Your task to perform on an android device: turn on priority inbox in the gmail app Image 0: 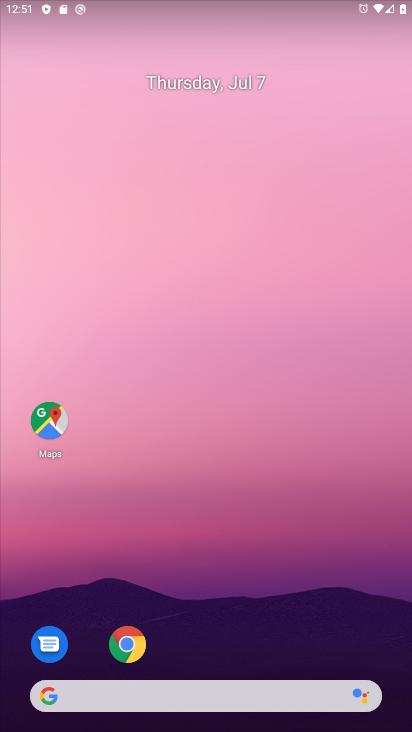
Step 0: drag from (34, 713) to (114, 285)
Your task to perform on an android device: turn on priority inbox in the gmail app Image 1: 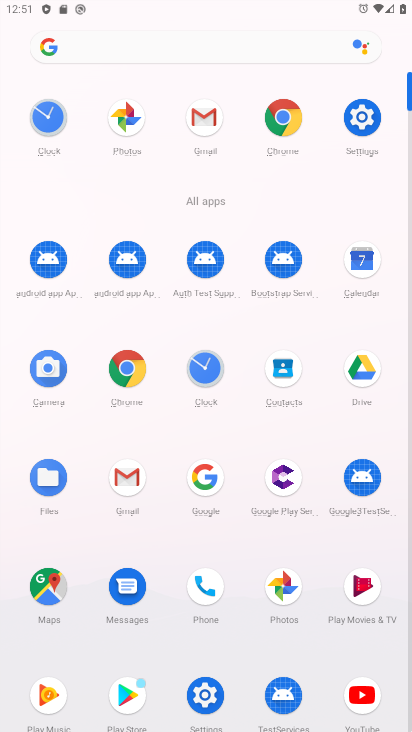
Step 1: click (197, 129)
Your task to perform on an android device: turn on priority inbox in the gmail app Image 2: 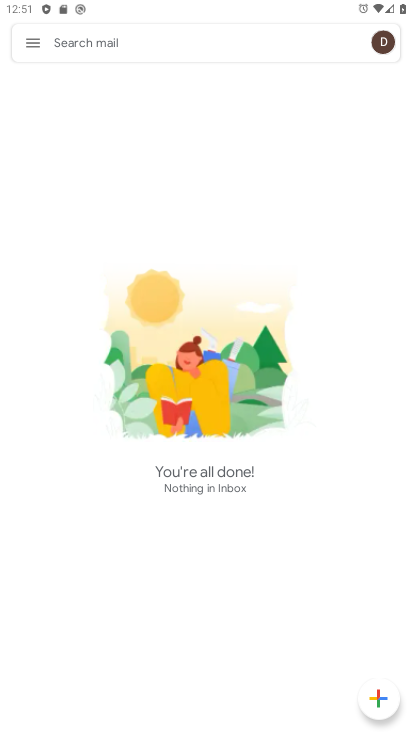
Step 2: click (32, 45)
Your task to perform on an android device: turn on priority inbox in the gmail app Image 3: 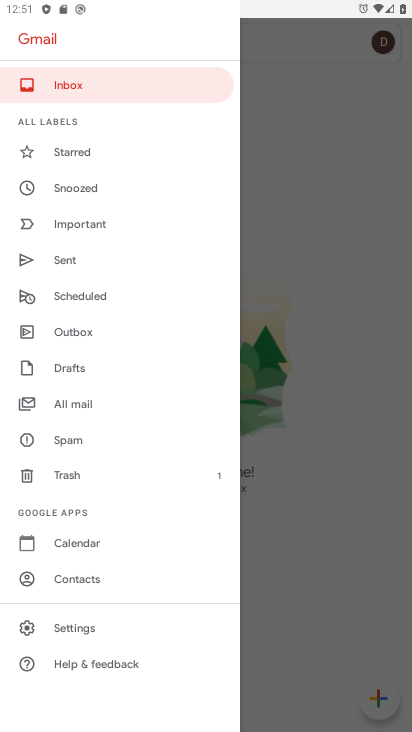
Step 3: click (78, 632)
Your task to perform on an android device: turn on priority inbox in the gmail app Image 4: 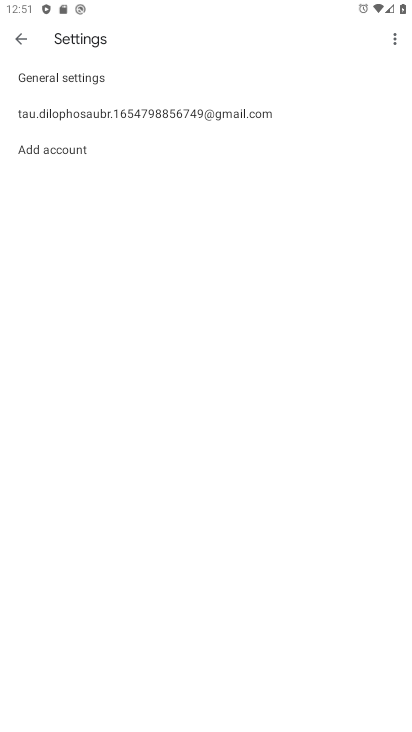
Step 4: click (46, 75)
Your task to perform on an android device: turn on priority inbox in the gmail app Image 5: 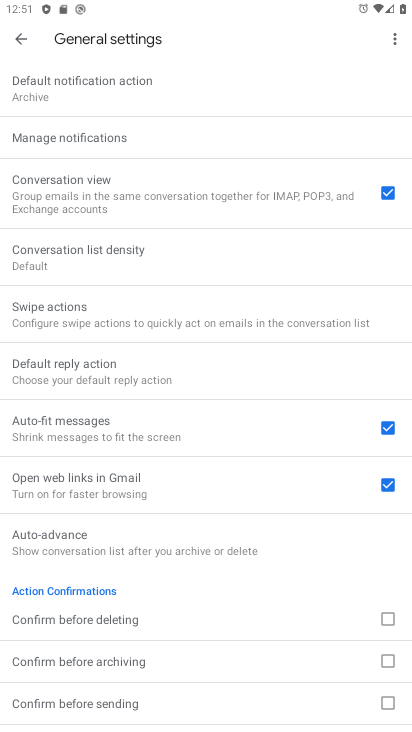
Step 5: drag from (202, 600) to (194, 168)
Your task to perform on an android device: turn on priority inbox in the gmail app Image 6: 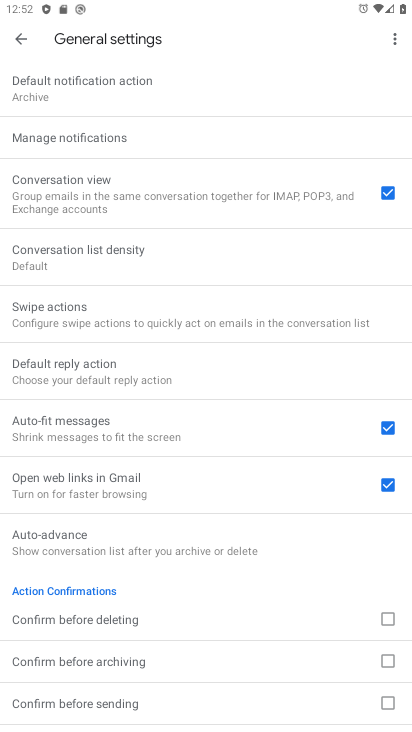
Step 6: drag from (267, 672) to (194, 171)
Your task to perform on an android device: turn on priority inbox in the gmail app Image 7: 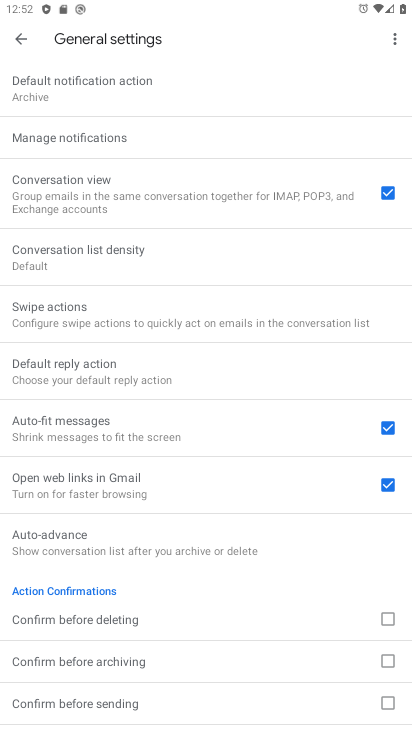
Step 7: click (14, 41)
Your task to perform on an android device: turn on priority inbox in the gmail app Image 8: 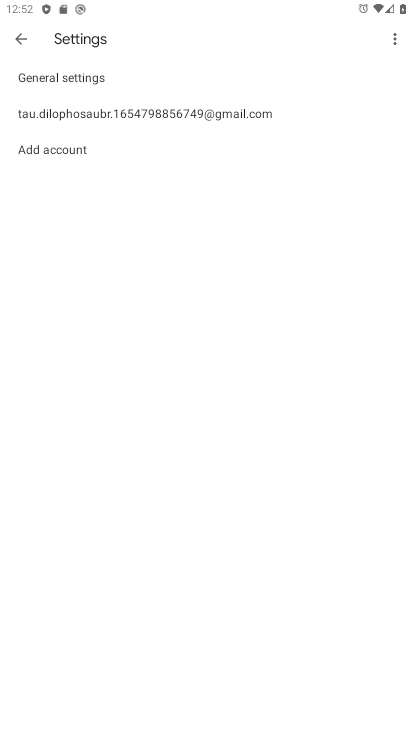
Step 8: click (47, 106)
Your task to perform on an android device: turn on priority inbox in the gmail app Image 9: 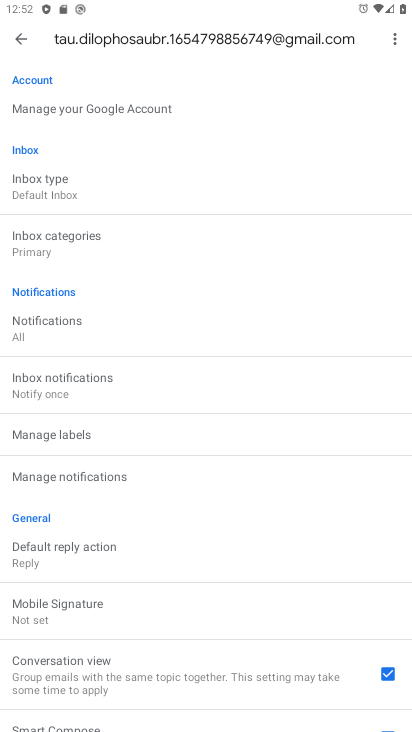
Step 9: click (71, 557)
Your task to perform on an android device: turn on priority inbox in the gmail app Image 10: 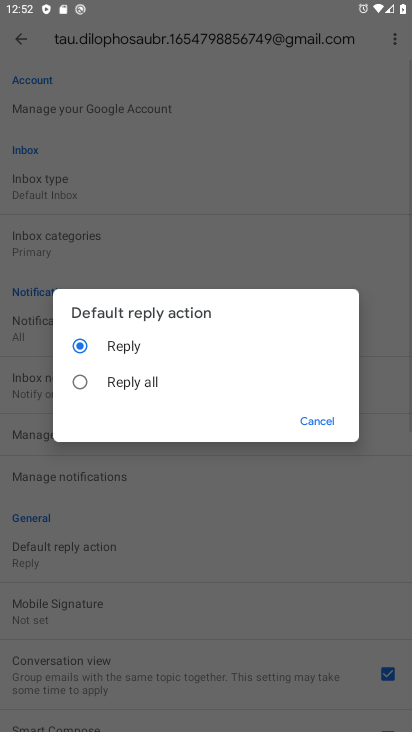
Step 10: click (71, 557)
Your task to perform on an android device: turn on priority inbox in the gmail app Image 11: 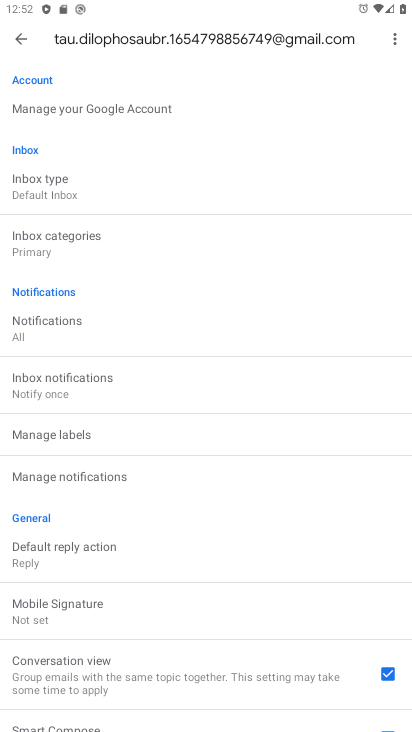
Step 11: click (69, 188)
Your task to perform on an android device: turn on priority inbox in the gmail app Image 12: 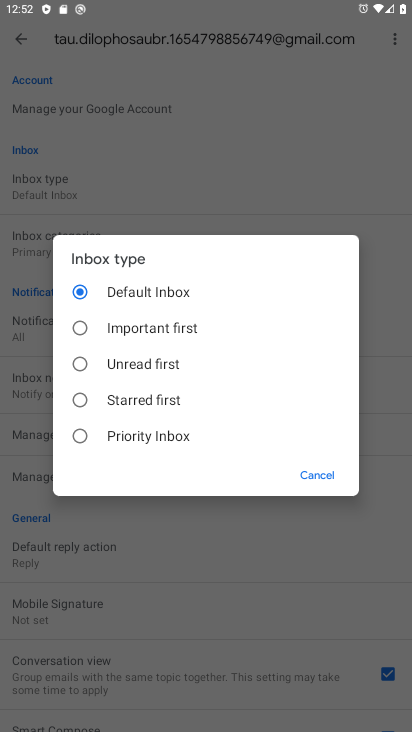
Step 12: click (105, 444)
Your task to perform on an android device: turn on priority inbox in the gmail app Image 13: 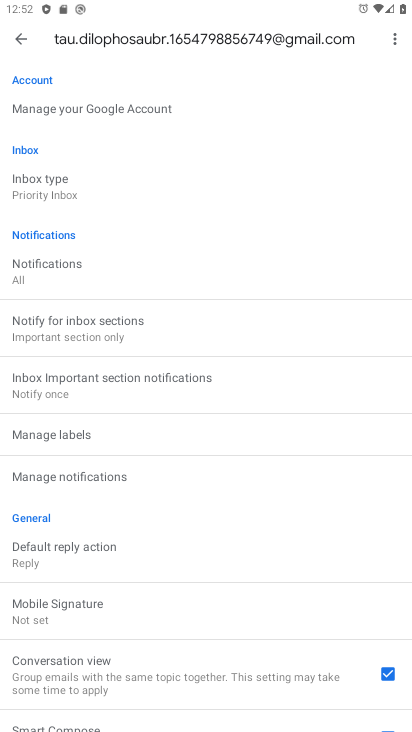
Step 13: click (100, 185)
Your task to perform on an android device: turn on priority inbox in the gmail app Image 14: 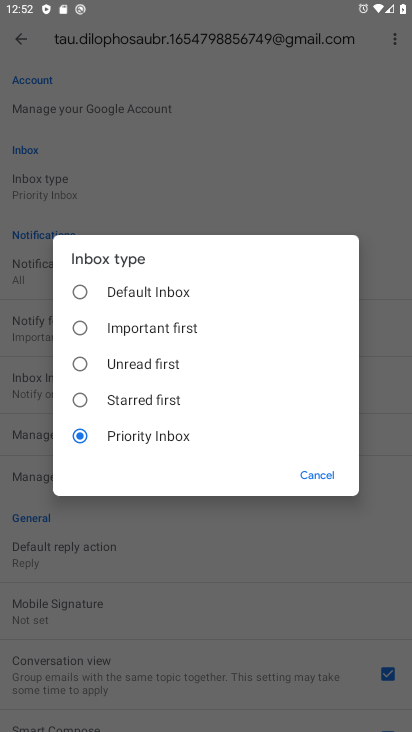
Step 14: click (311, 472)
Your task to perform on an android device: turn on priority inbox in the gmail app Image 15: 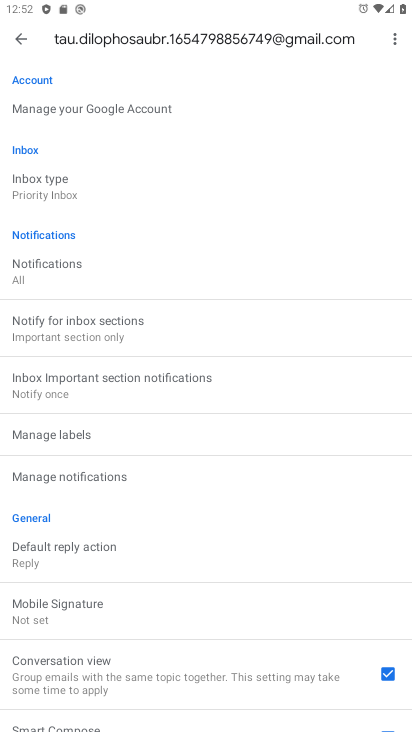
Step 15: task complete